Your task to perform on an android device: change timer sound Image 0: 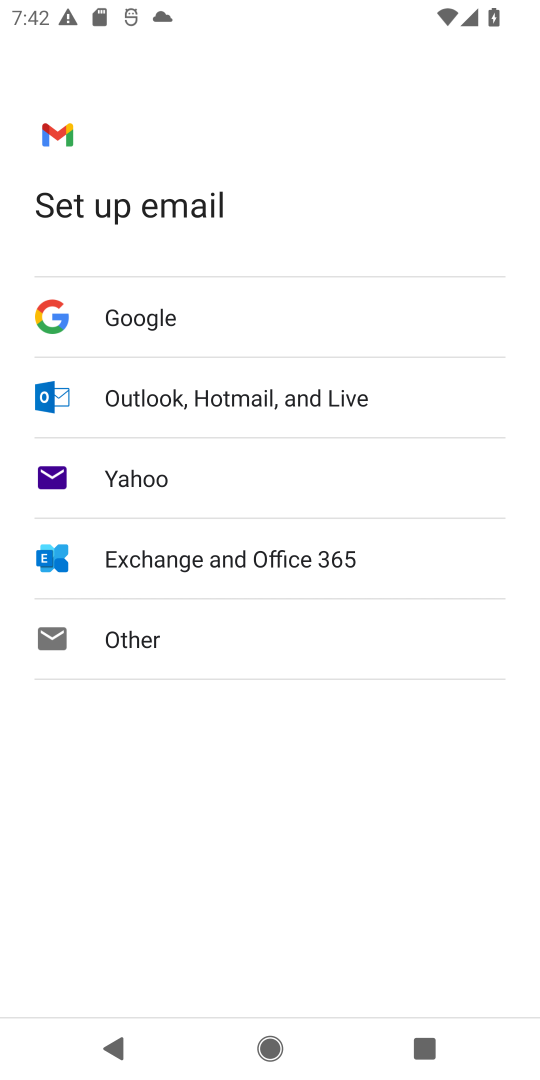
Step 0: press home button
Your task to perform on an android device: change timer sound Image 1: 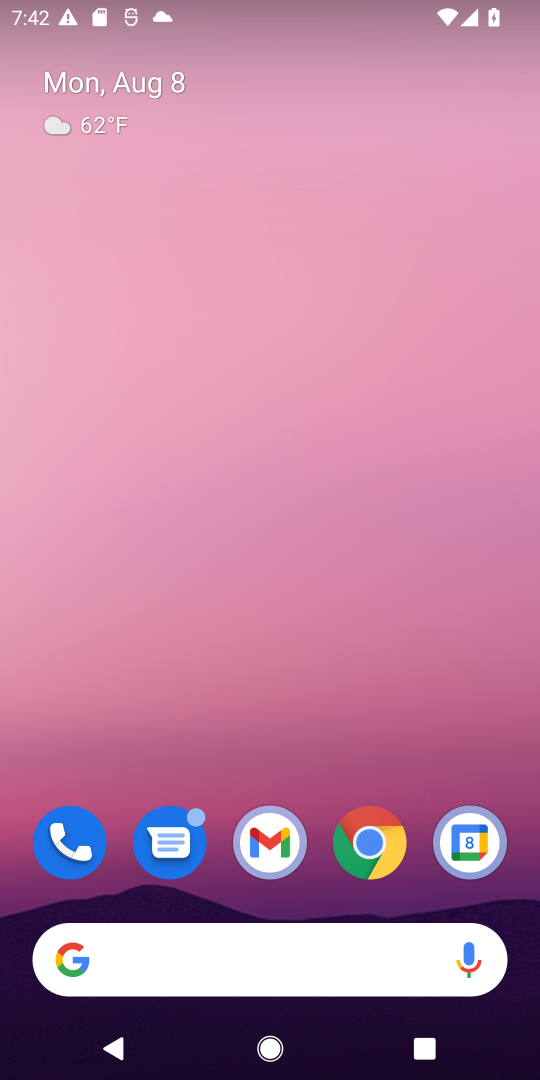
Step 1: drag from (305, 733) to (441, 25)
Your task to perform on an android device: change timer sound Image 2: 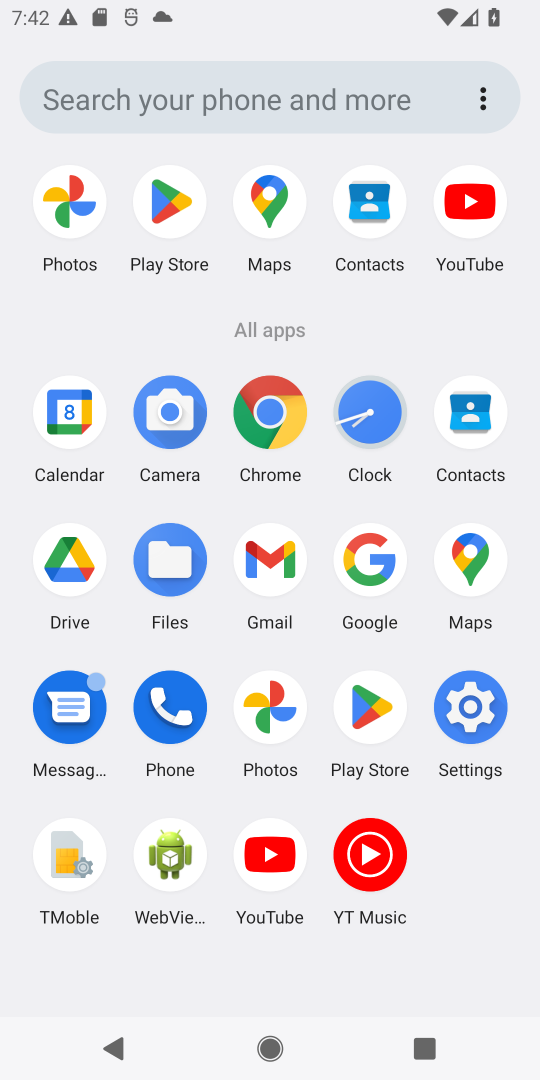
Step 2: click (371, 410)
Your task to perform on an android device: change timer sound Image 3: 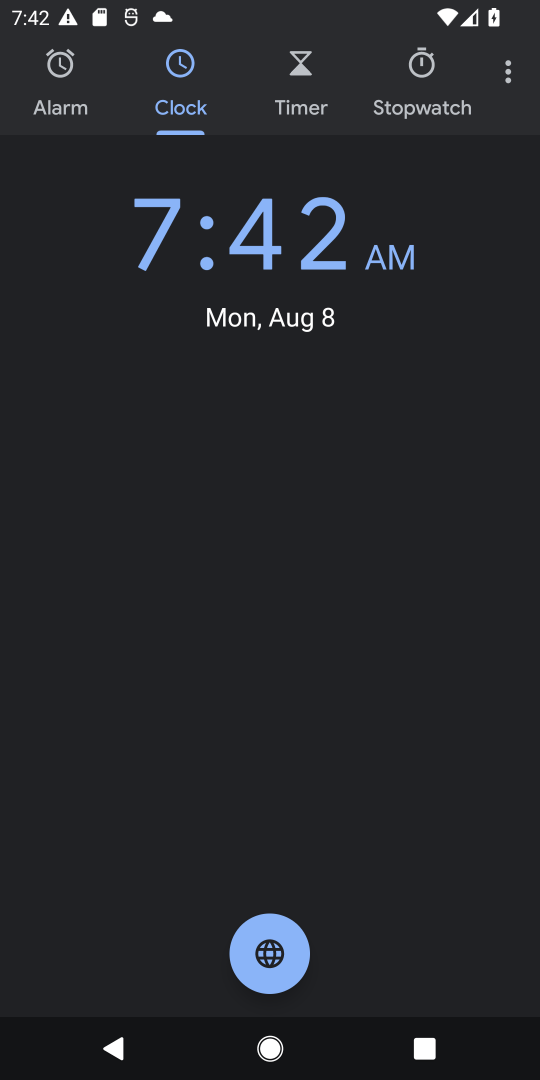
Step 3: click (512, 81)
Your task to perform on an android device: change timer sound Image 4: 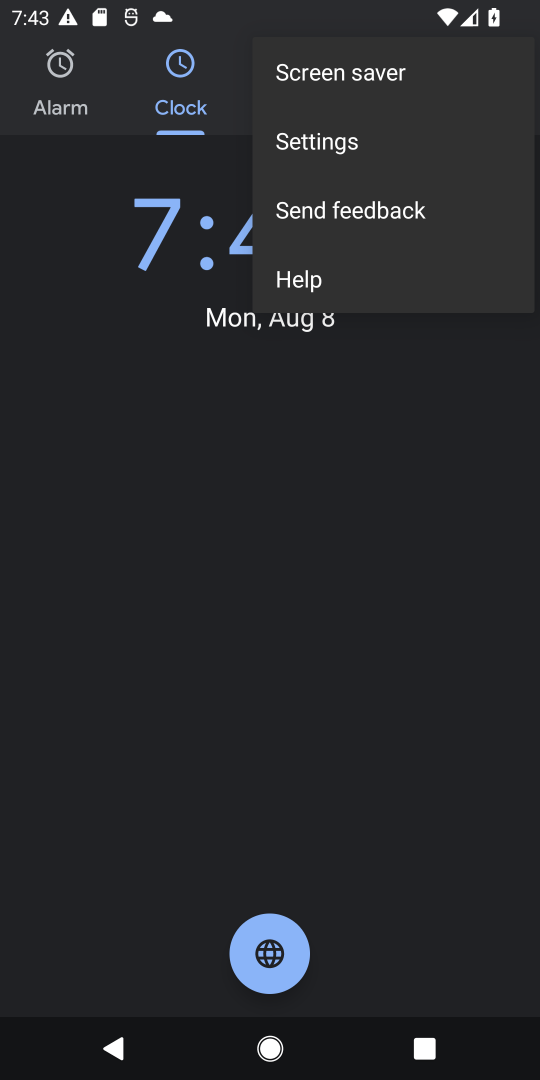
Step 4: click (419, 149)
Your task to perform on an android device: change timer sound Image 5: 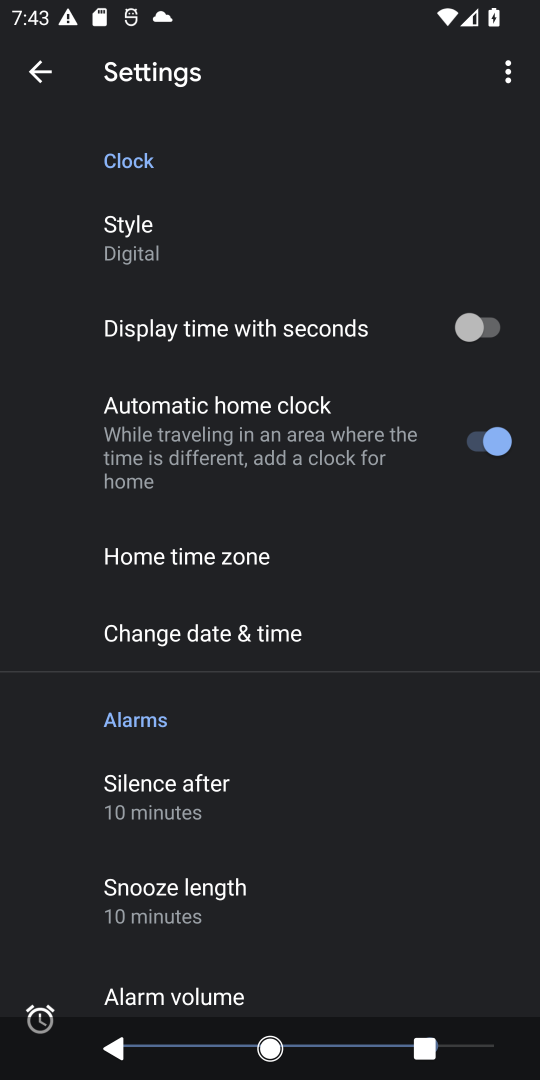
Step 5: click (340, 640)
Your task to perform on an android device: change timer sound Image 6: 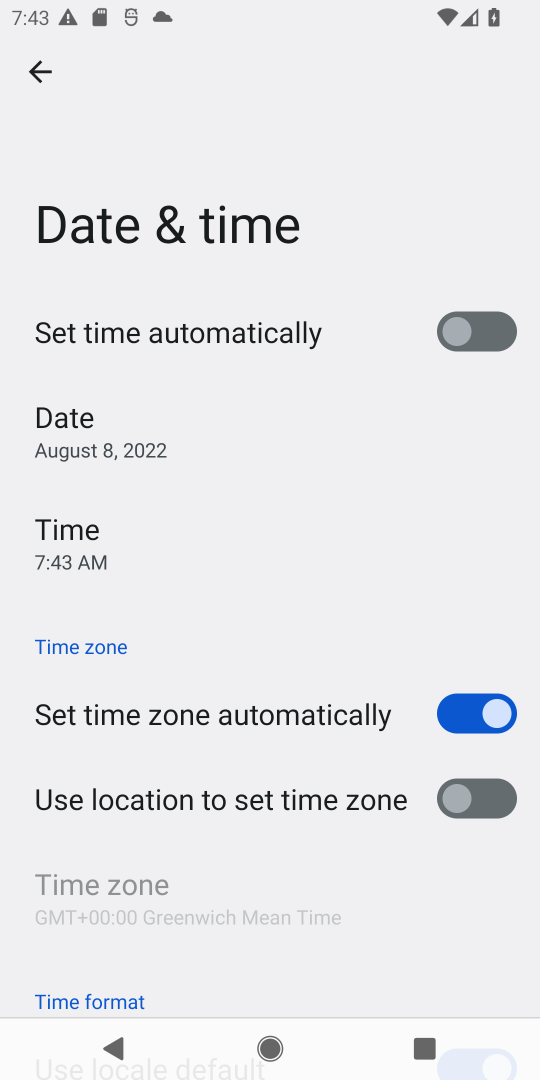
Step 6: drag from (325, 761) to (394, 28)
Your task to perform on an android device: change timer sound Image 7: 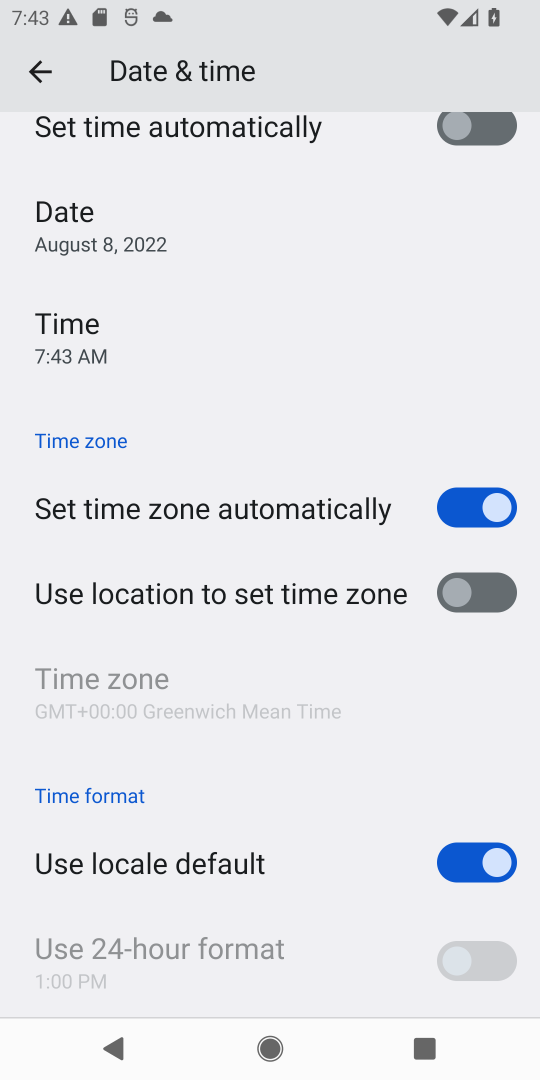
Step 7: click (40, 65)
Your task to perform on an android device: change timer sound Image 8: 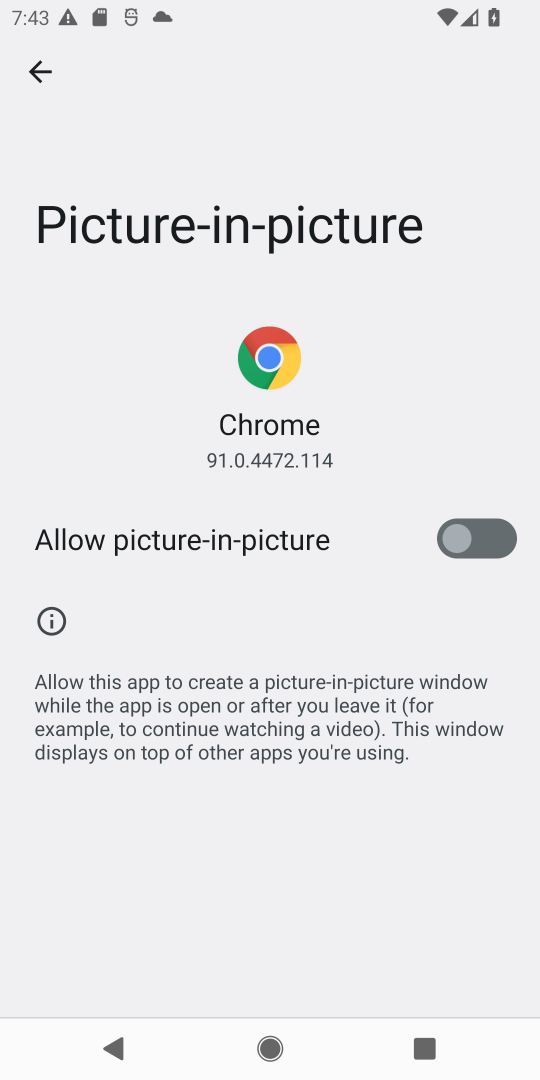
Step 8: drag from (273, 851) to (342, 112)
Your task to perform on an android device: change timer sound Image 9: 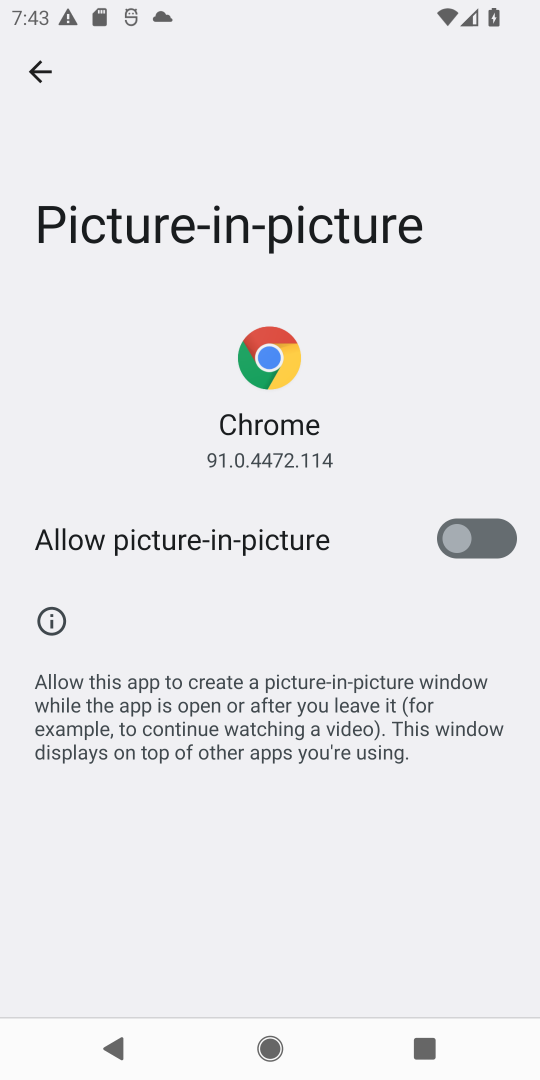
Step 9: press home button
Your task to perform on an android device: change timer sound Image 10: 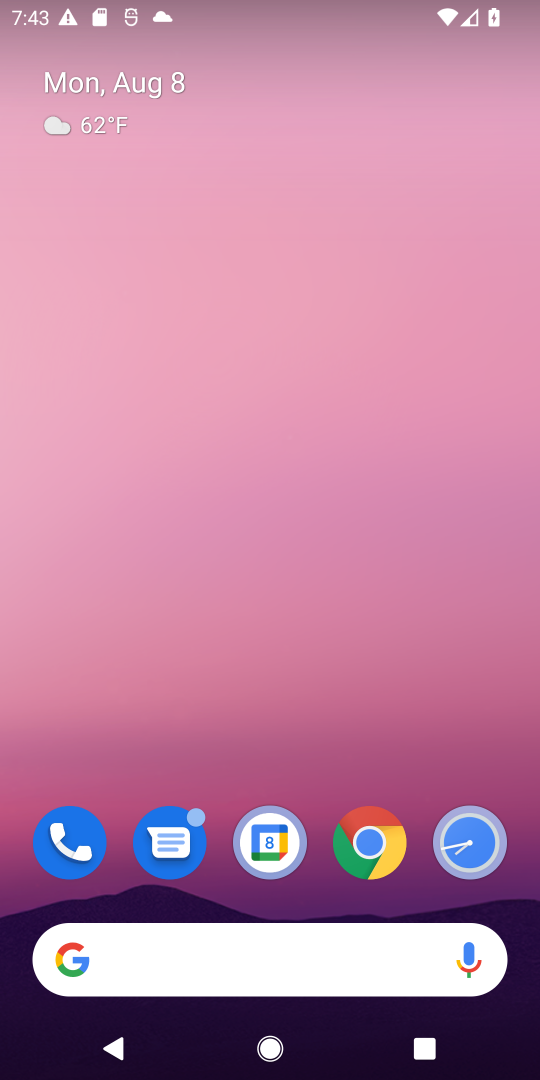
Step 10: click (471, 837)
Your task to perform on an android device: change timer sound Image 11: 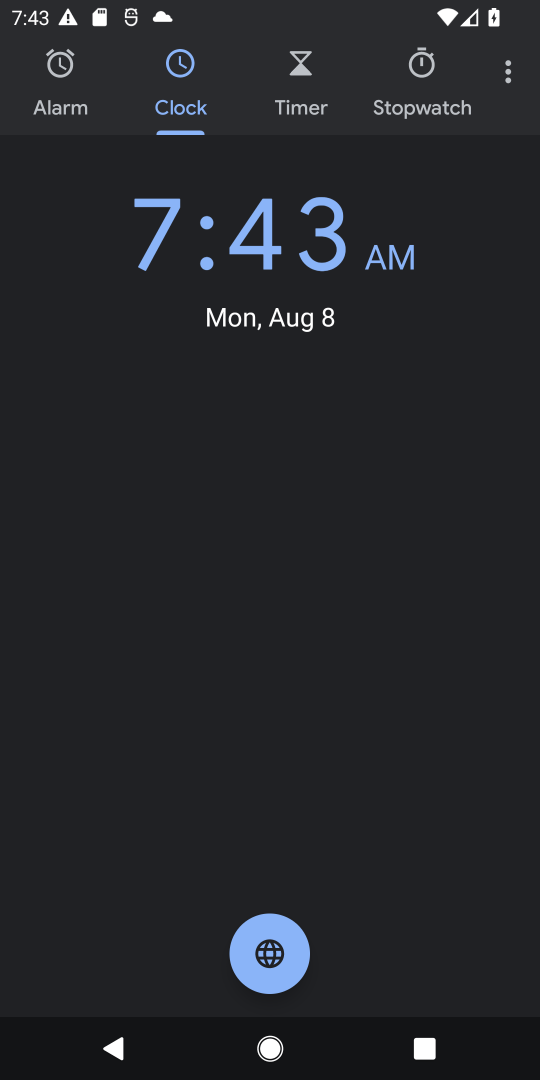
Step 11: click (504, 67)
Your task to perform on an android device: change timer sound Image 12: 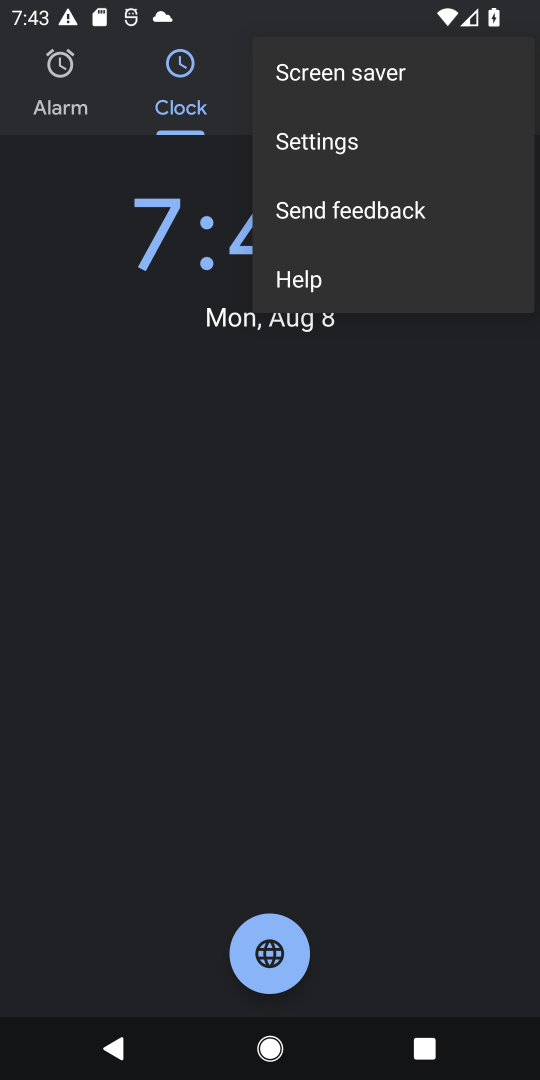
Step 12: click (412, 136)
Your task to perform on an android device: change timer sound Image 13: 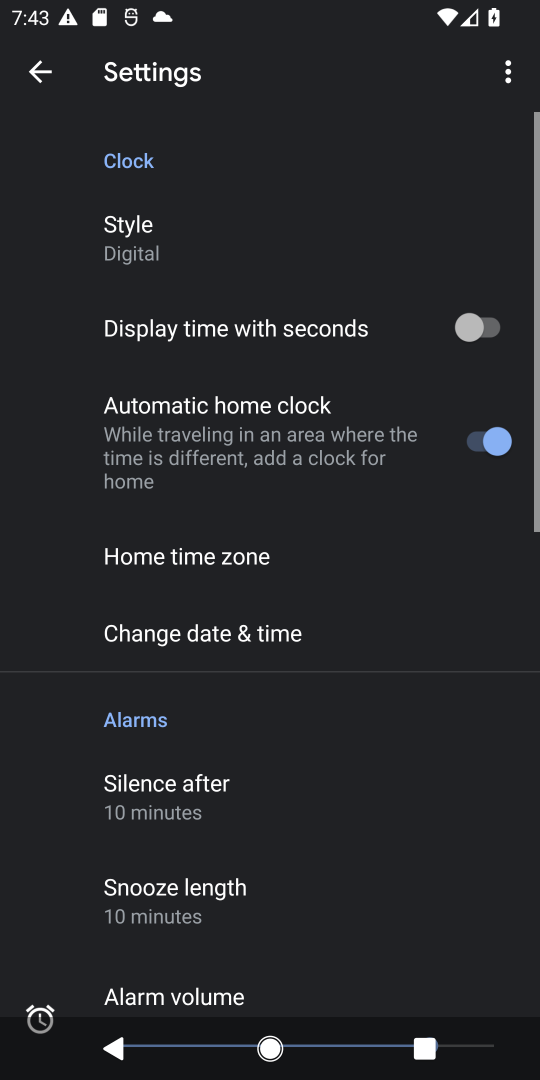
Step 13: drag from (298, 848) to (371, 0)
Your task to perform on an android device: change timer sound Image 14: 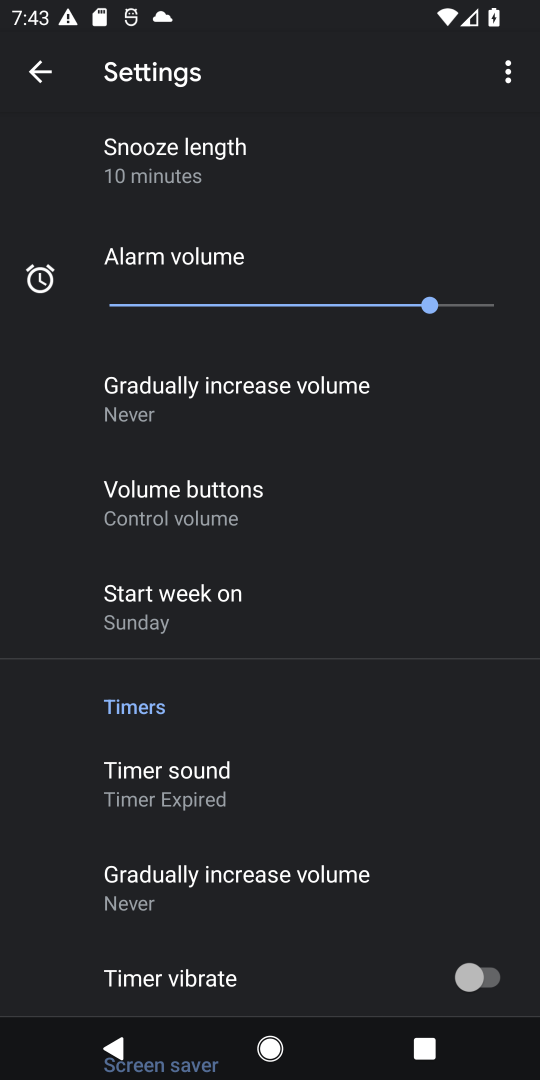
Step 14: click (233, 785)
Your task to perform on an android device: change timer sound Image 15: 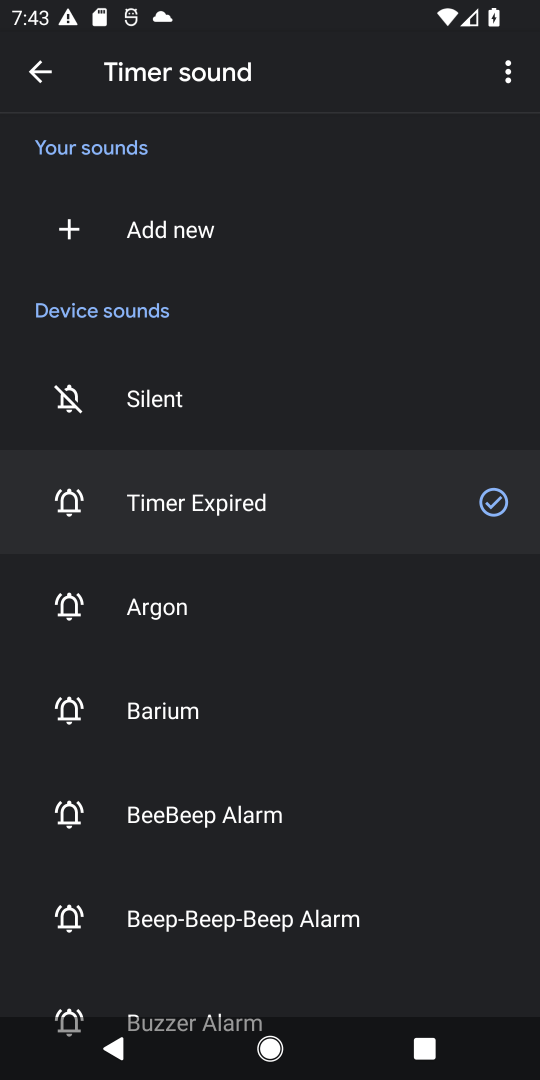
Step 15: click (184, 725)
Your task to perform on an android device: change timer sound Image 16: 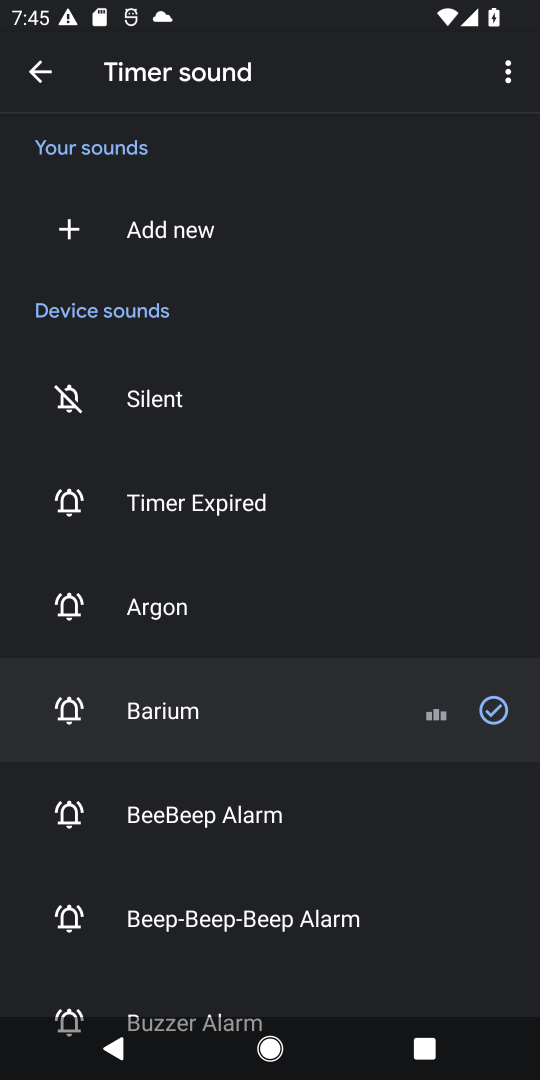
Step 16: task complete